Your task to perform on an android device: Is it going to rain this weekend? Image 0: 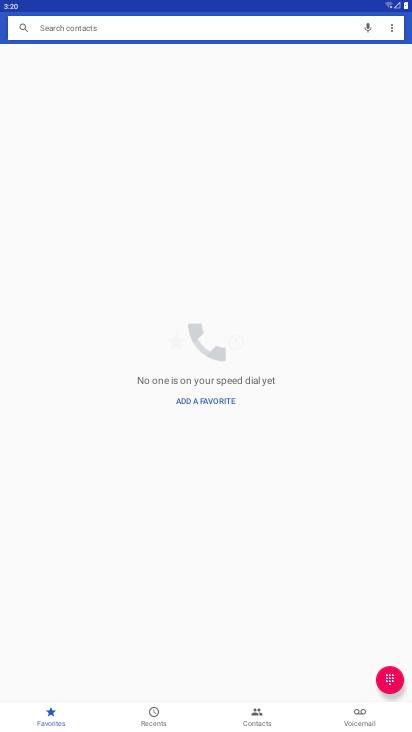
Step 0: press home button
Your task to perform on an android device: Is it going to rain this weekend? Image 1: 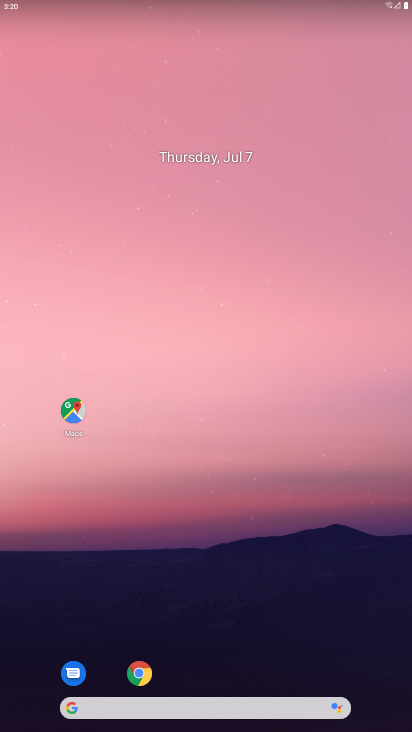
Step 1: click (149, 708)
Your task to perform on an android device: Is it going to rain this weekend? Image 2: 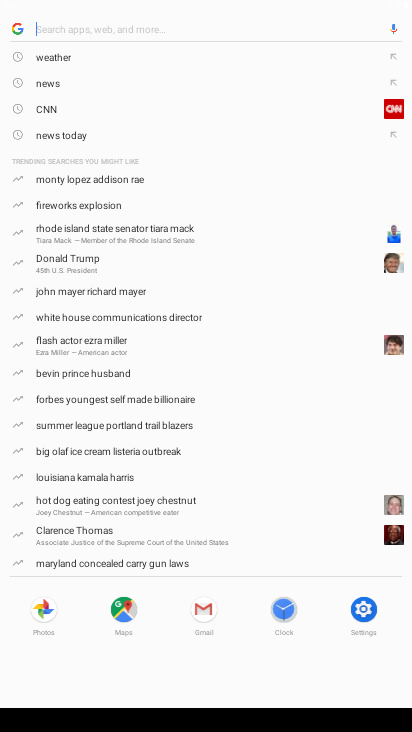
Step 2: type "Is it going to rain this weekend"
Your task to perform on an android device: Is it going to rain this weekend? Image 3: 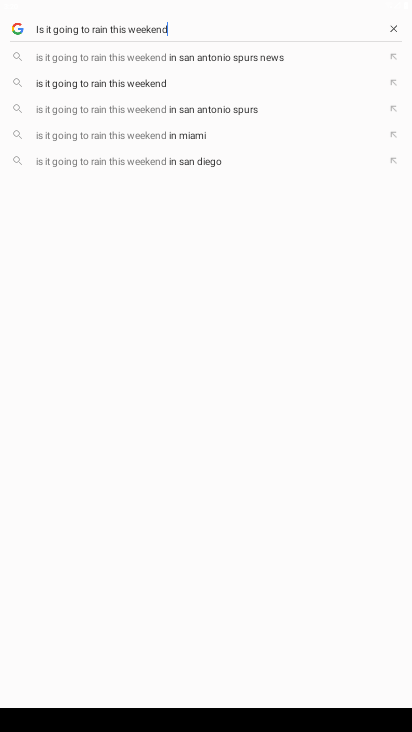
Step 3: click (131, 83)
Your task to perform on an android device: Is it going to rain this weekend? Image 4: 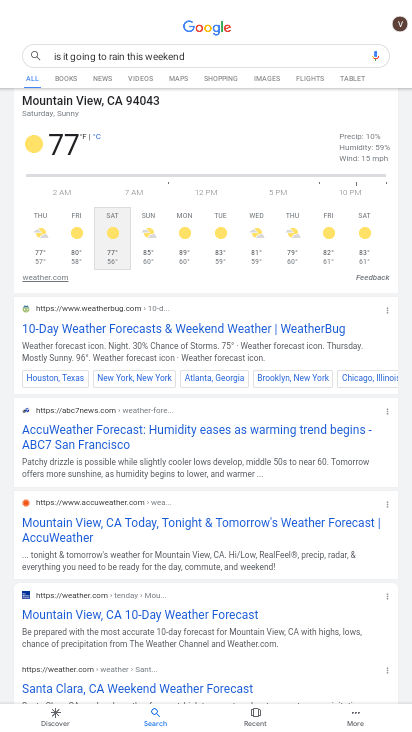
Step 4: task complete